Your task to perform on an android device: Open internet settings Image 0: 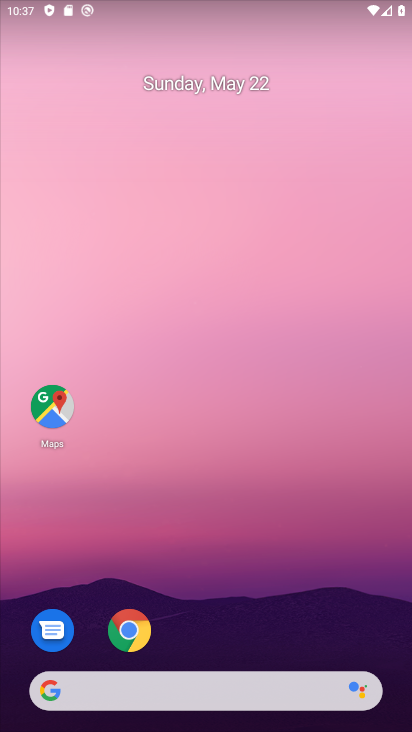
Step 0: drag from (379, 608) to (379, 170)
Your task to perform on an android device: Open internet settings Image 1: 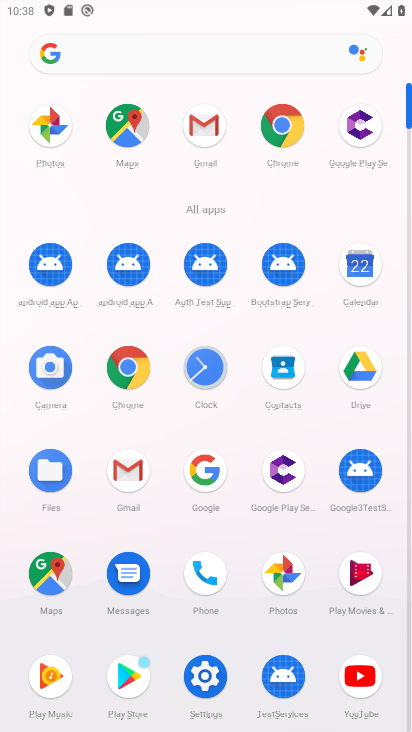
Step 1: click (213, 682)
Your task to perform on an android device: Open internet settings Image 2: 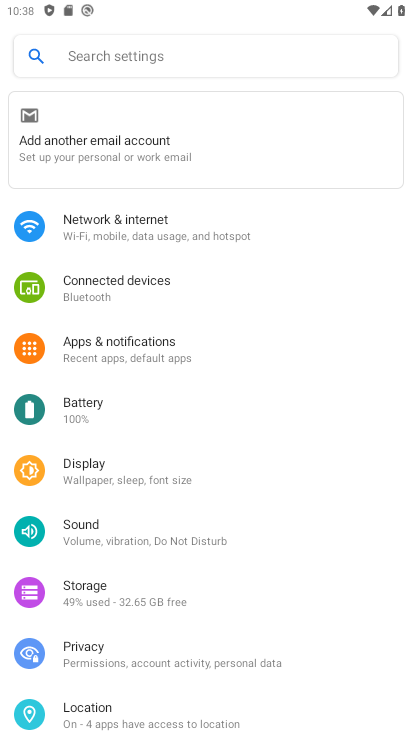
Step 2: drag from (343, 538) to (342, 362)
Your task to perform on an android device: Open internet settings Image 3: 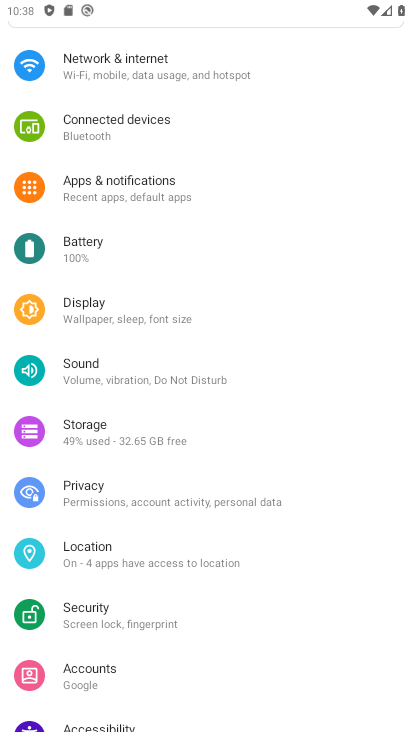
Step 3: drag from (332, 598) to (328, 419)
Your task to perform on an android device: Open internet settings Image 4: 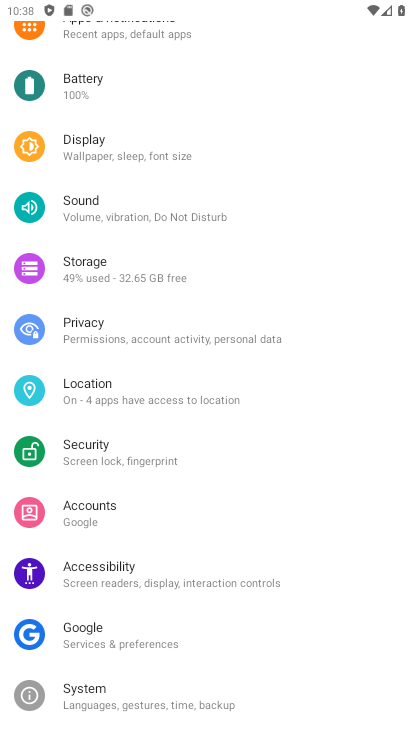
Step 4: drag from (319, 563) to (317, 452)
Your task to perform on an android device: Open internet settings Image 5: 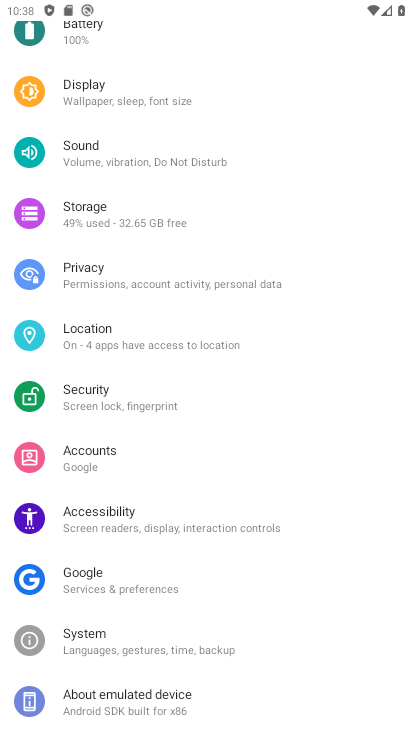
Step 5: drag from (321, 567) to (333, 393)
Your task to perform on an android device: Open internet settings Image 6: 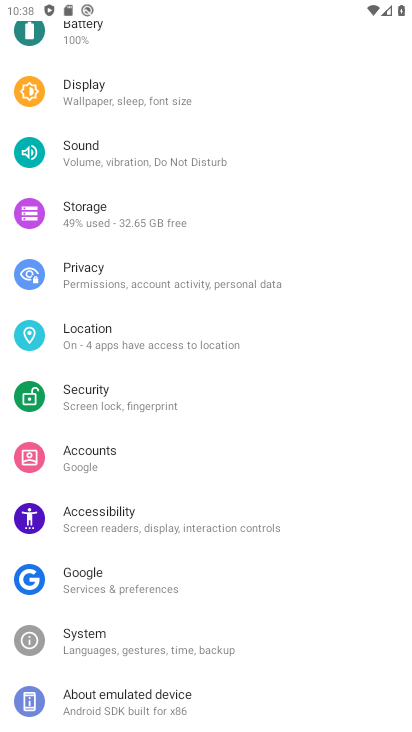
Step 6: drag from (324, 279) to (329, 514)
Your task to perform on an android device: Open internet settings Image 7: 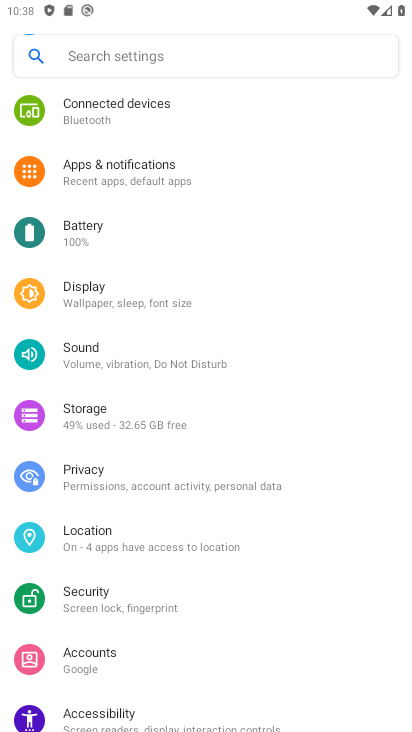
Step 7: drag from (338, 281) to (323, 450)
Your task to perform on an android device: Open internet settings Image 8: 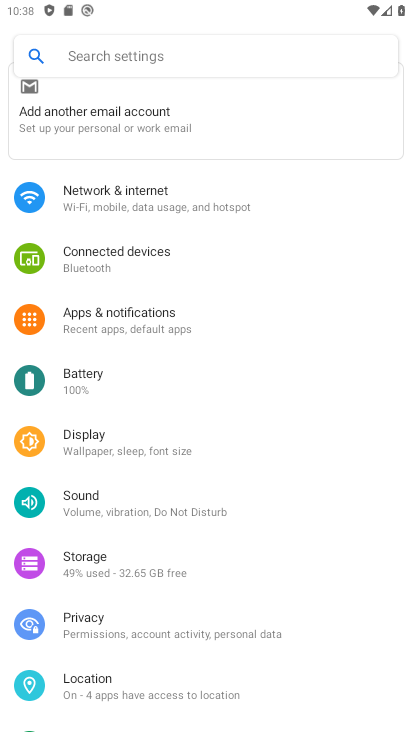
Step 8: click (235, 193)
Your task to perform on an android device: Open internet settings Image 9: 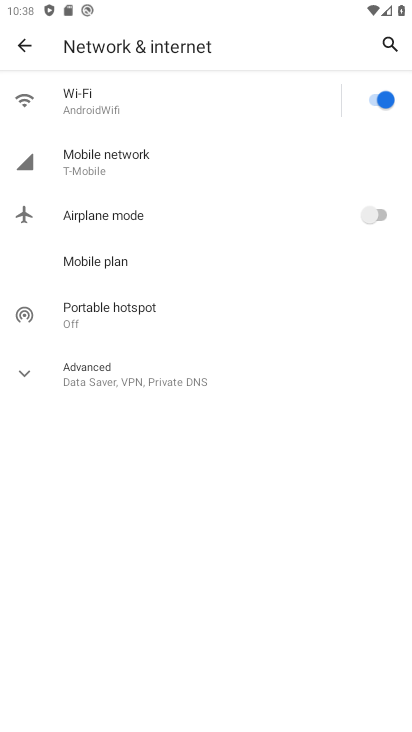
Step 9: task complete